Your task to perform on an android device: visit the assistant section in the google photos Image 0: 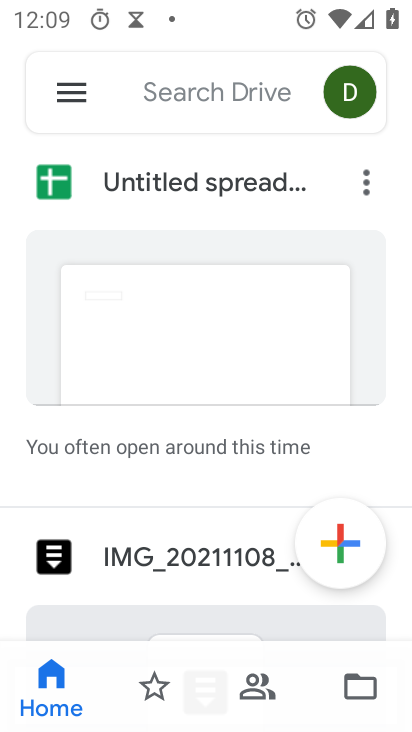
Step 0: press home button
Your task to perform on an android device: visit the assistant section in the google photos Image 1: 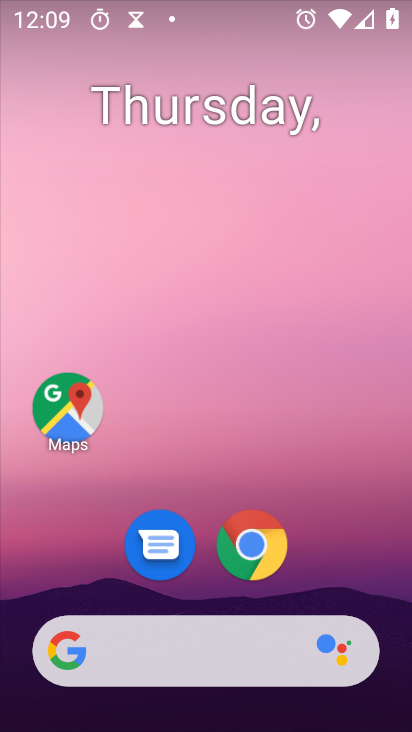
Step 1: drag from (216, 639) to (374, 120)
Your task to perform on an android device: visit the assistant section in the google photos Image 2: 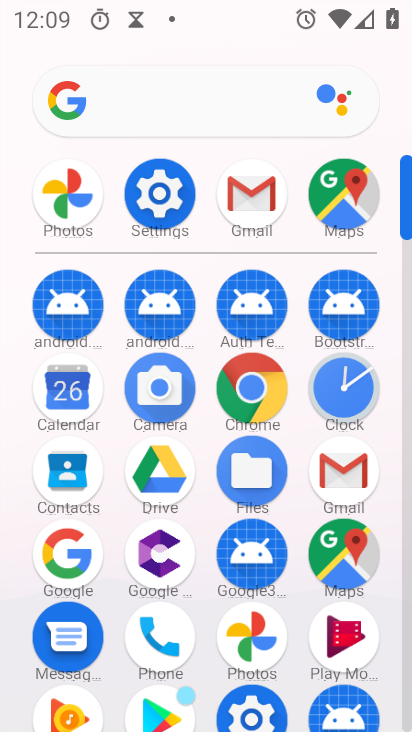
Step 2: click (258, 649)
Your task to perform on an android device: visit the assistant section in the google photos Image 3: 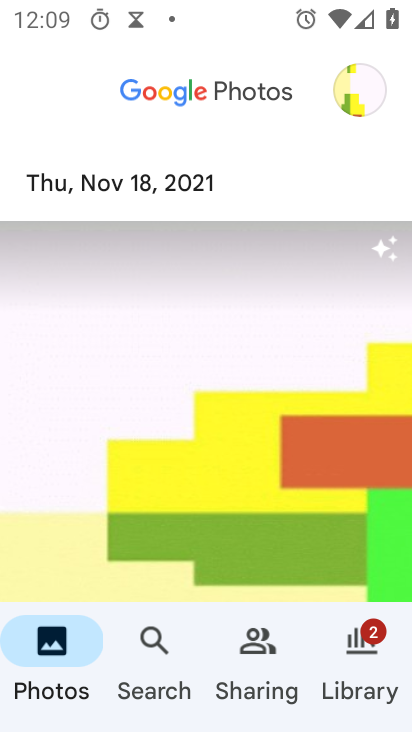
Step 3: click (163, 682)
Your task to perform on an android device: visit the assistant section in the google photos Image 4: 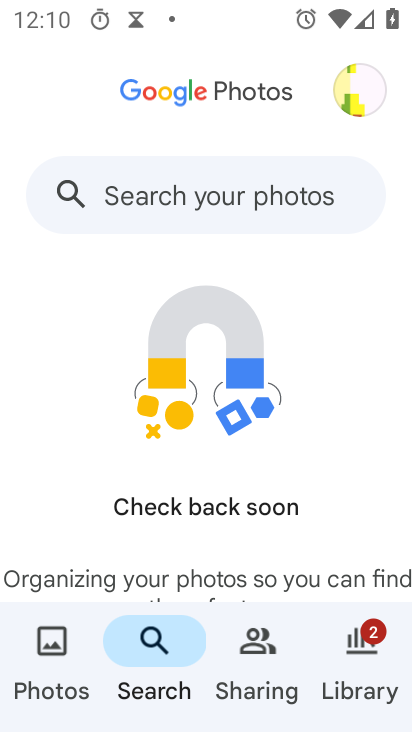
Step 4: task complete